Your task to perform on an android device: Set the phone to "Do not disturb". Image 0: 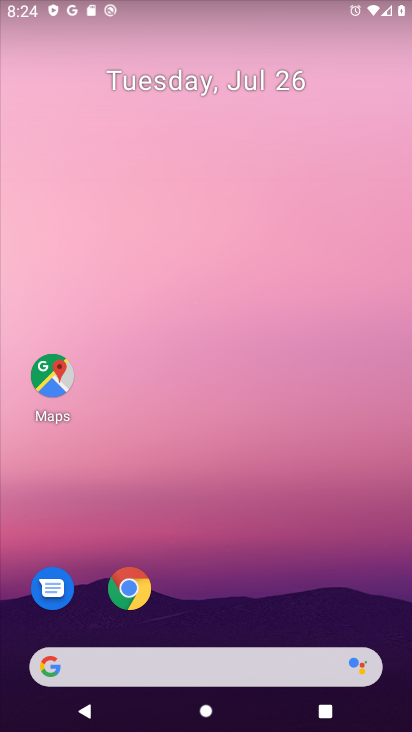
Step 0: drag from (244, 628) to (246, 39)
Your task to perform on an android device: Set the phone to "Do not disturb". Image 1: 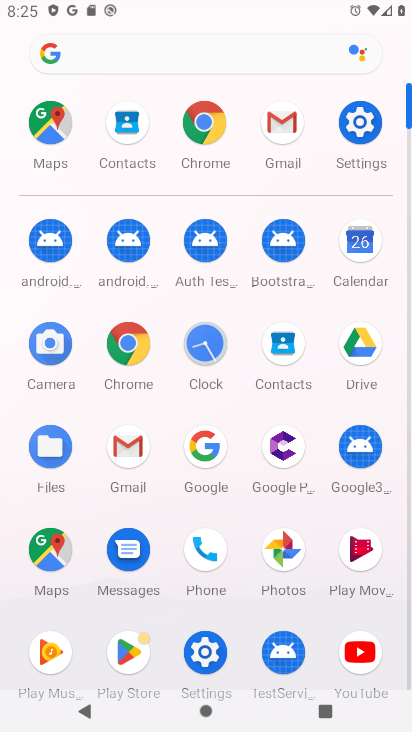
Step 1: drag from (273, 5) to (206, 576)
Your task to perform on an android device: Set the phone to "Do not disturb". Image 2: 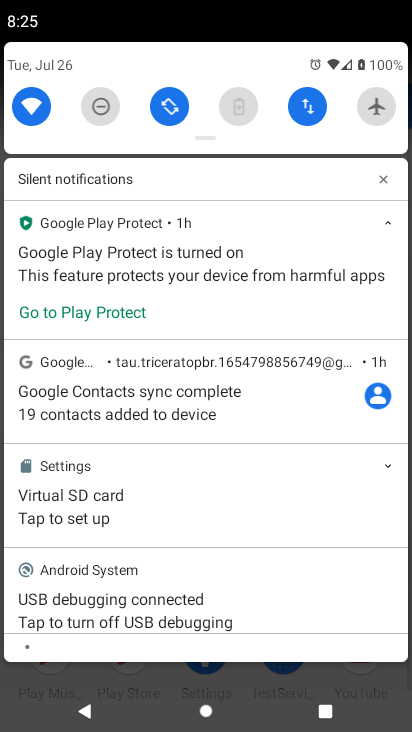
Step 2: click (97, 114)
Your task to perform on an android device: Set the phone to "Do not disturb". Image 3: 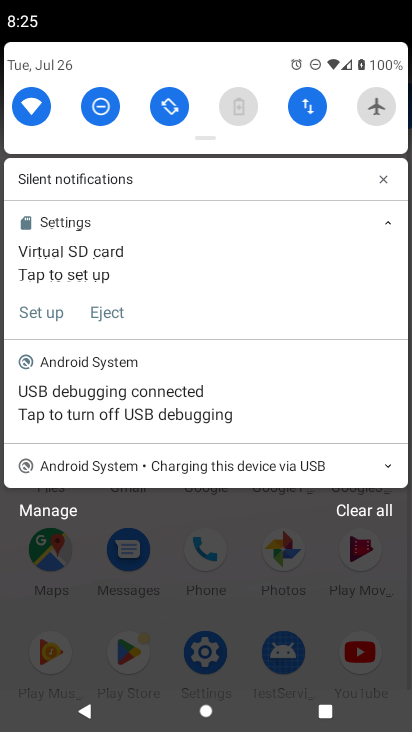
Step 3: task complete